Your task to perform on an android device: Search for the best vacuum on Amazon. Image 0: 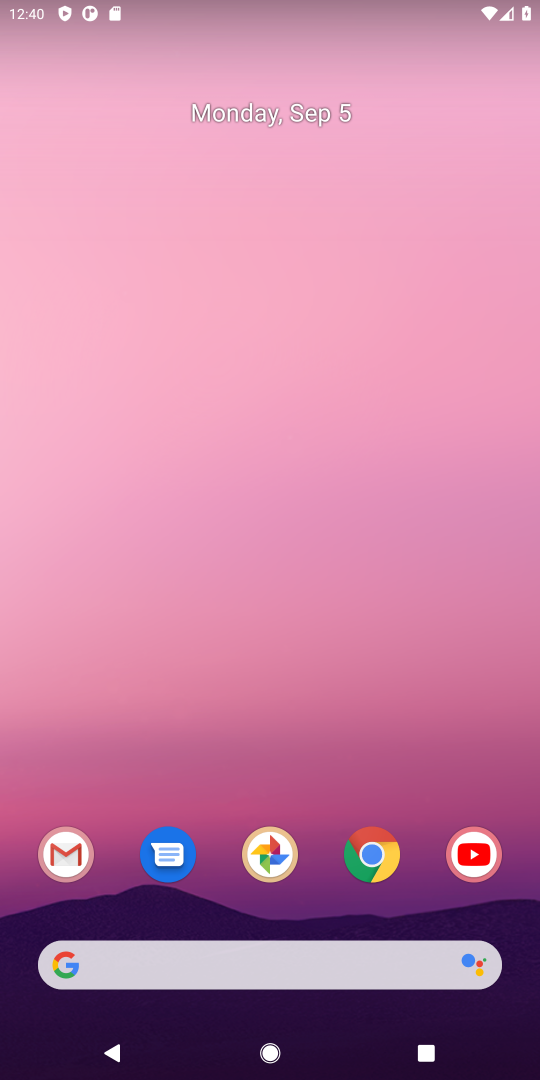
Step 0: click (370, 855)
Your task to perform on an android device: Search for the best vacuum on Amazon. Image 1: 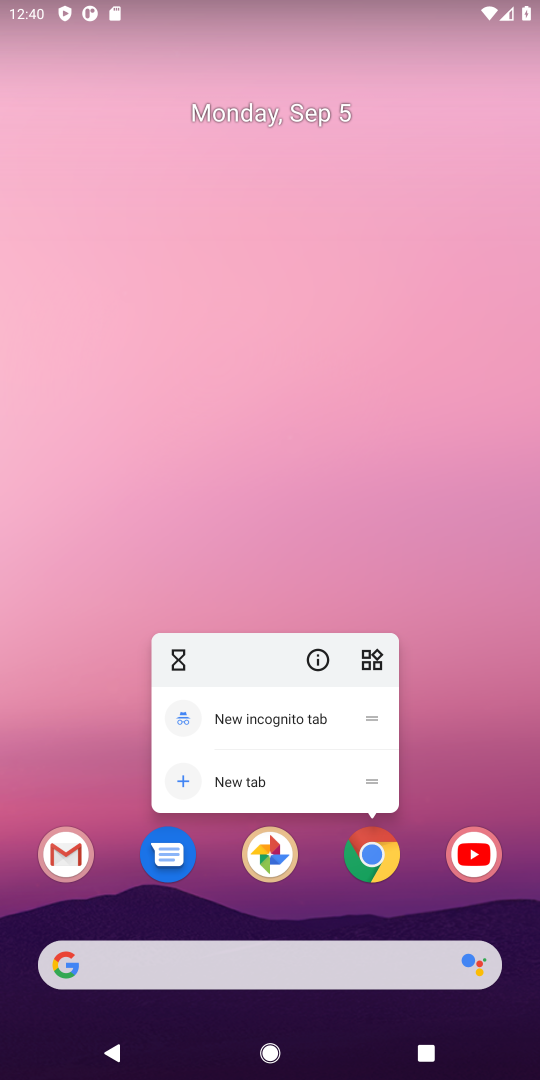
Step 1: click (370, 856)
Your task to perform on an android device: Search for the best vacuum on Amazon. Image 2: 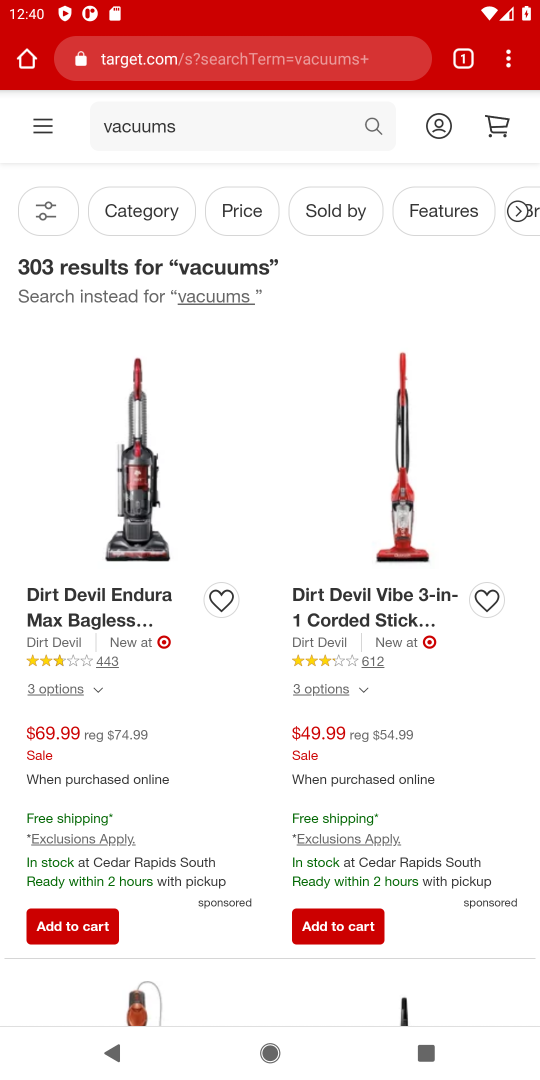
Step 2: click (237, 66)
Your task to perform on an android device: Search for the best vacuum on Amazon. Image 3: 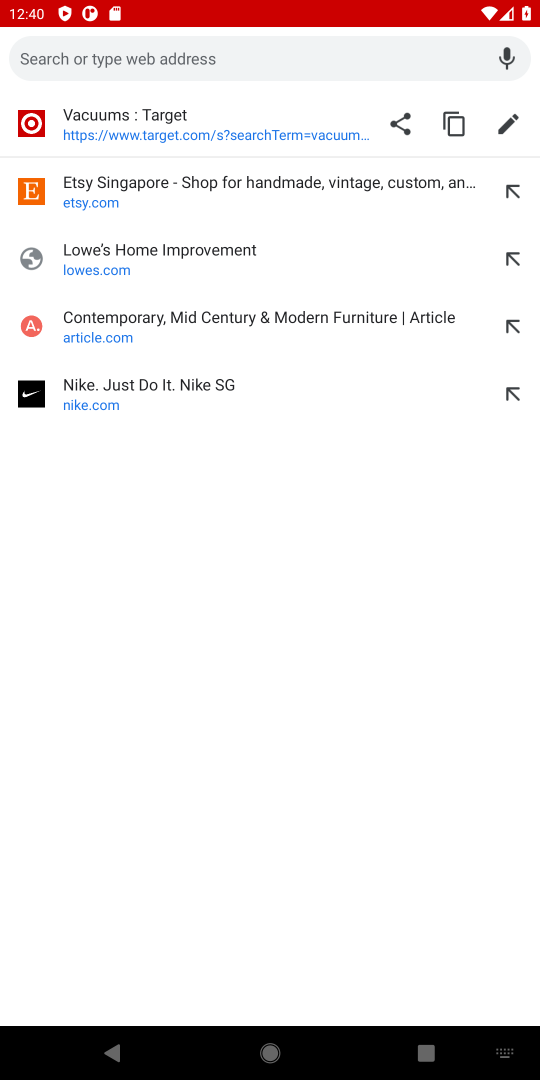
Step 3: type "Amazon"
Your task to perform on an android device: Search for the best vacuum on Amazon. Image 4: 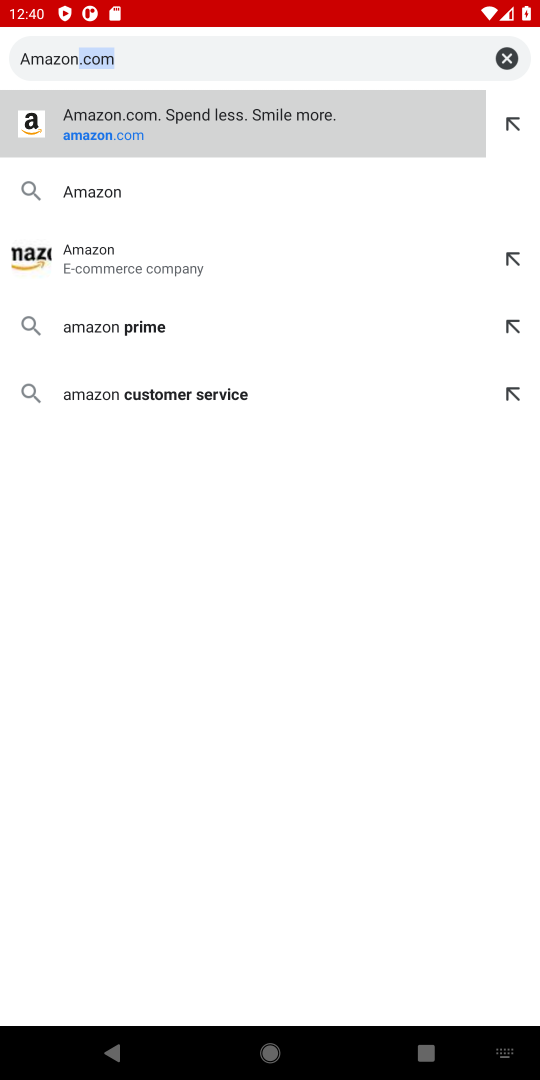
Step 4: press enter
Your task to perform on an android device: Search for the best vacuum on Amazon. Image 5: 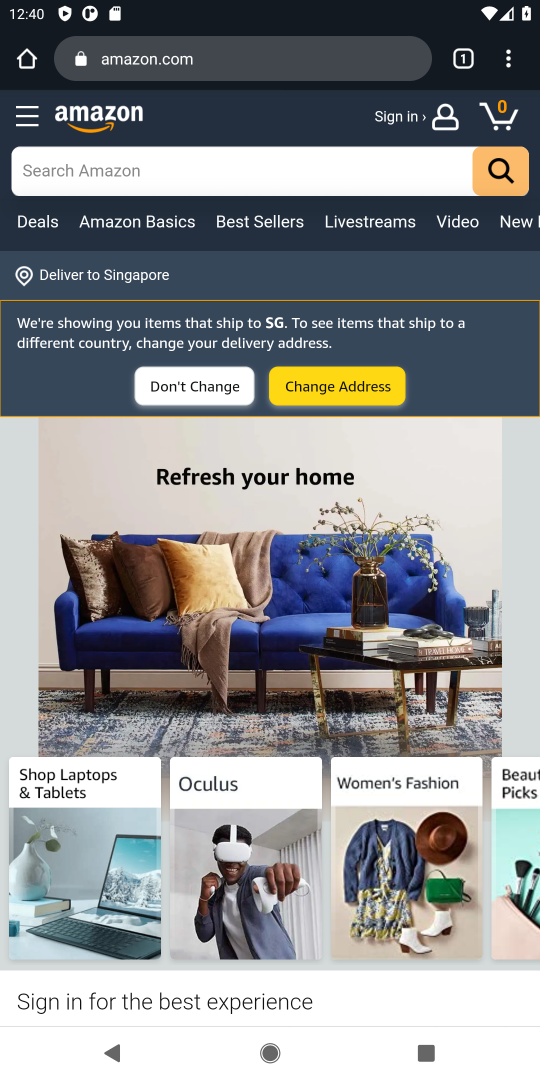
Step 5: click (256, 177)
Your task to perform on an android device: Search for the best vacuum on Amazon. Image 6: 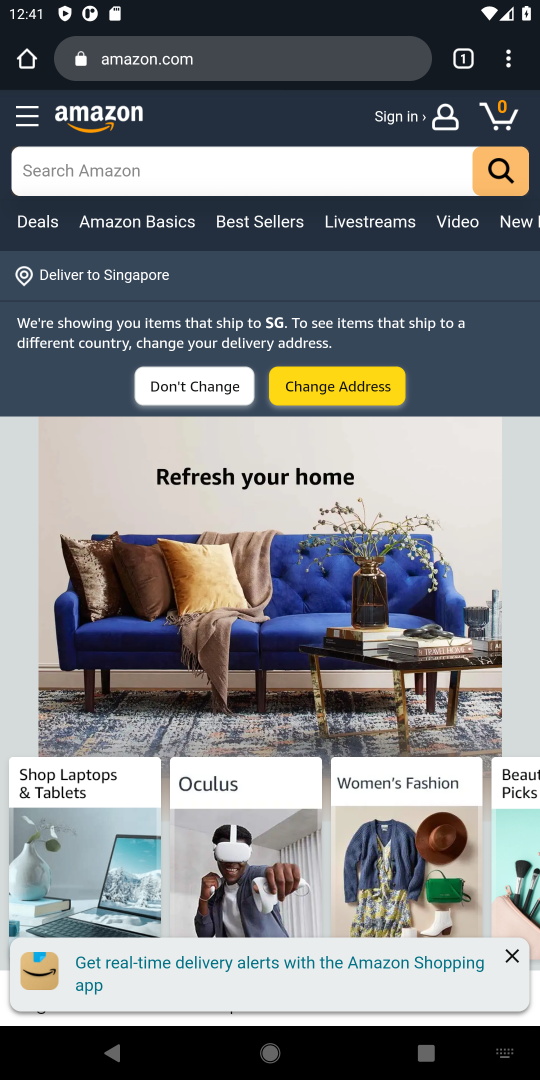
Step 6: type " vacuum "
Your task to perform on an android device: Search for the best vacuum on Amazon. Image 7: 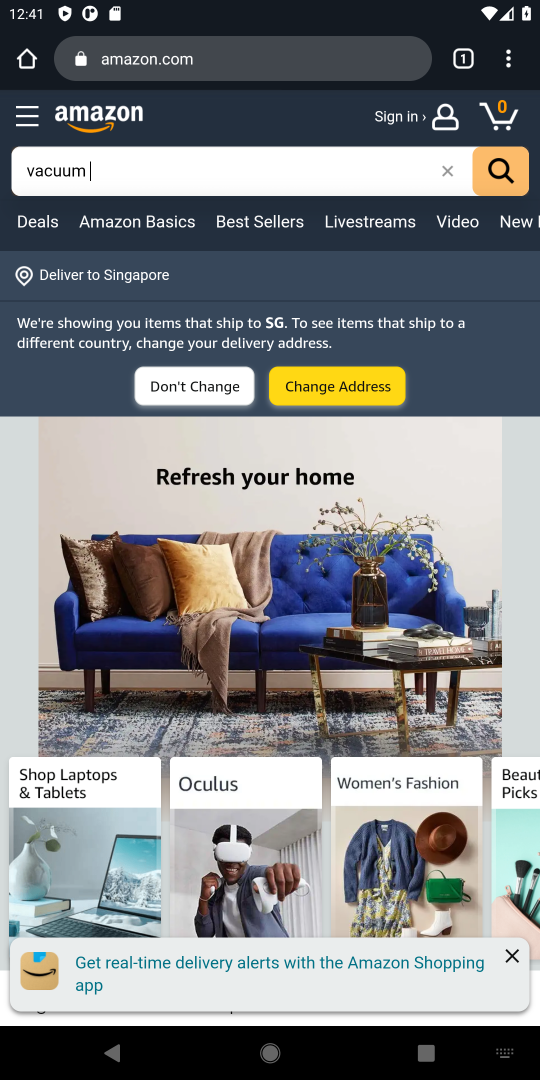
Step 7: press enter
Your task to perform on an android device: Search for the best vacuum on Amazon. Image 8: 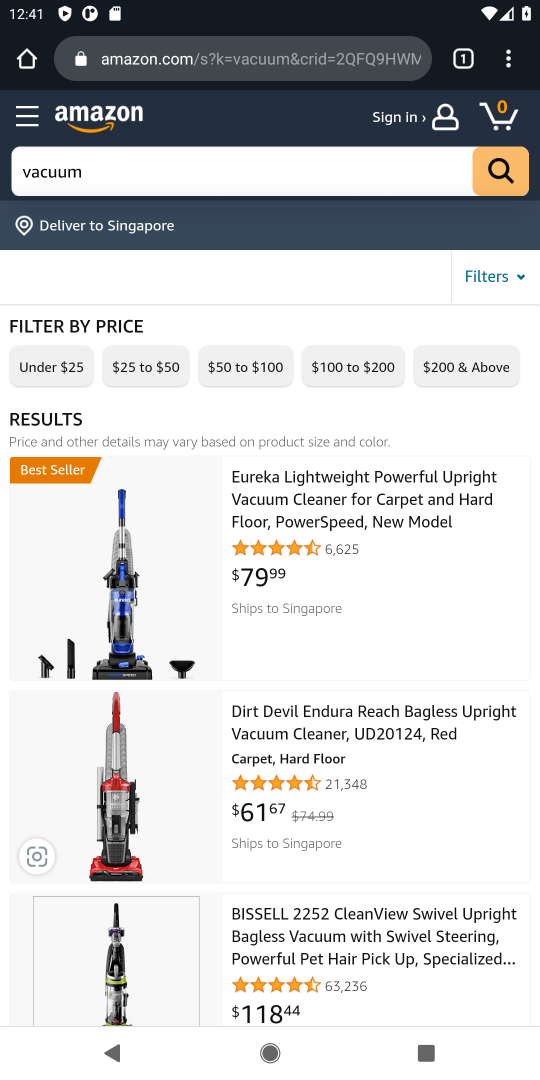
Step 8: task complete